Your task to perform on an android device: Turn off the flashlight Image 0: 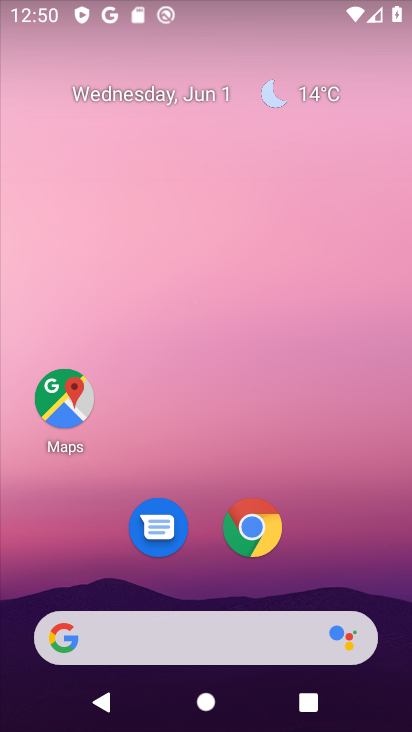
Step 0: drag from (194, 573) to (240, 183)
Your task to perform on an android device: Turn off the flashlight Image 1: 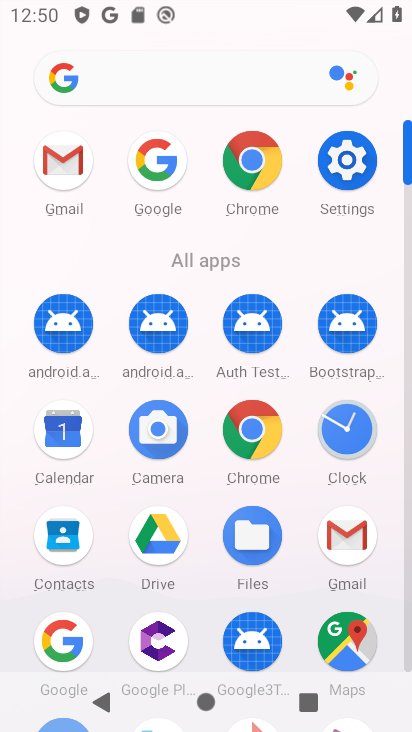
Step 1: task complete